Your task to perform on an android device: Open Chrome and go to settings Image 0: 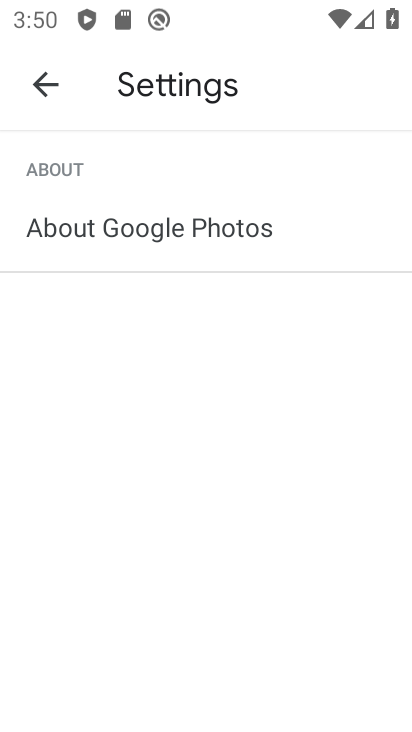
Step 0: press home button
Your task to perform on an android device: Open Chrome and go to settings Image 1: 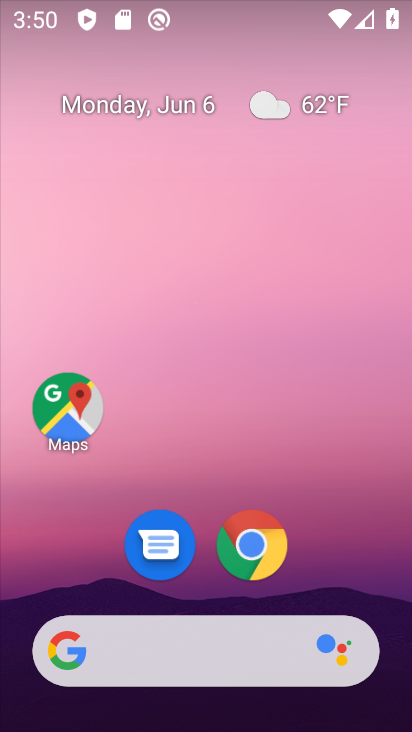
Step 1: drag from (243, 655) to (244, 135)
Your task to perform on an android device: Open Chrome and go to settings Image 2: 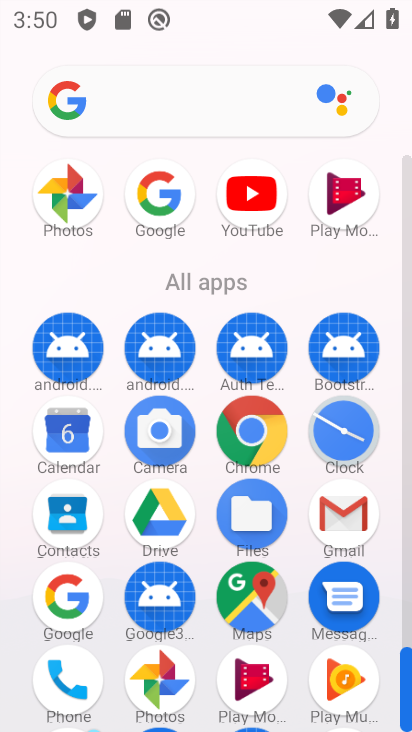
Step 2: click (247, 430)
Your task to perform on an android device: Open Chrome and go to settings Image 3: 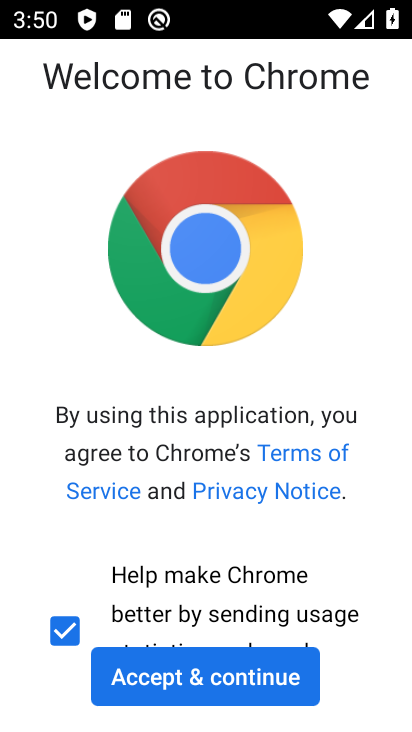
Step 3: click (176, 683)
Your task to perform on an android device: Open Chrome and go to settings Image 4: 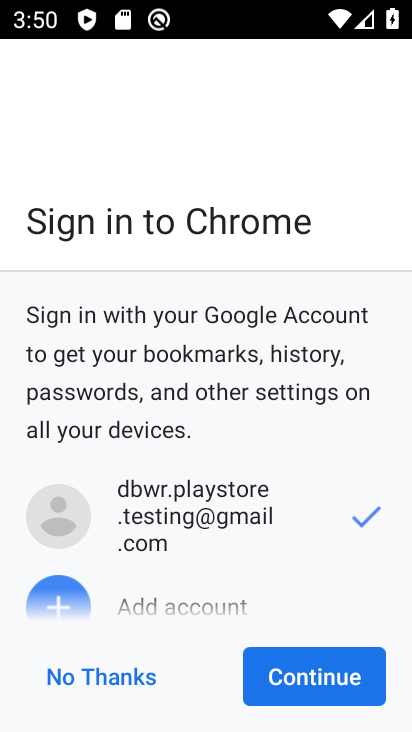
Step 4: click (284, 670)
Your task to perform on an android device: Open Chrome and go to settings Image 5: 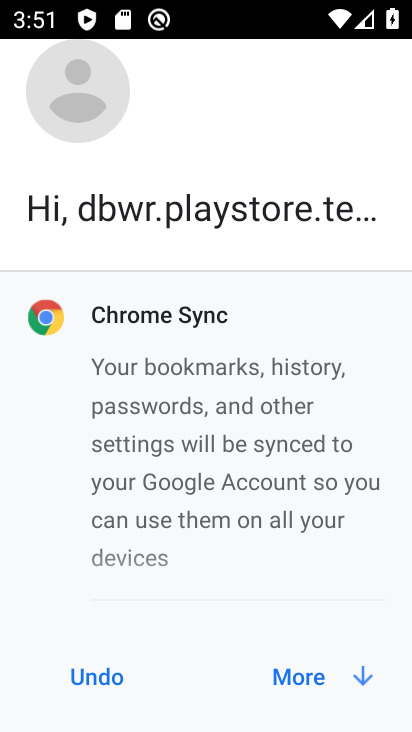
Step 5: click (295, 677)
Your task to perform on an android device: Open Chrome and go to settings Image 6: 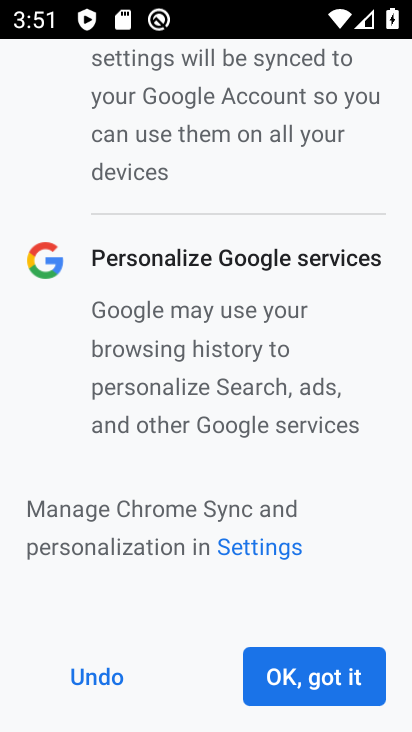
Step 6: click (313, 684)
Your task to perform on an android device: Open Chrome and go to settings Image 7: 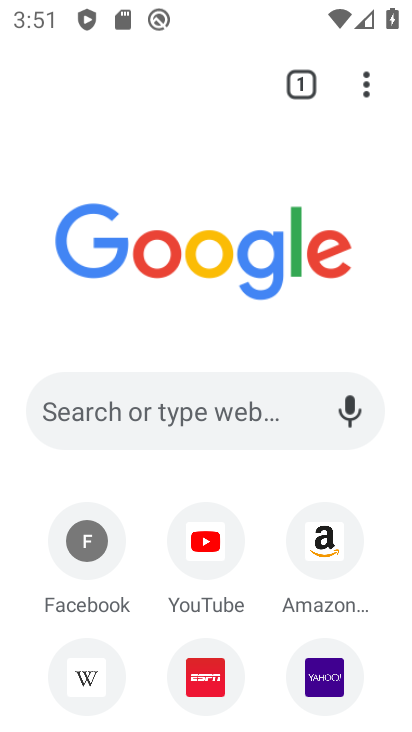
Step 7: click (369, 95)
Your task to perform on an android device: Open Chrome and go to settings Image 8: 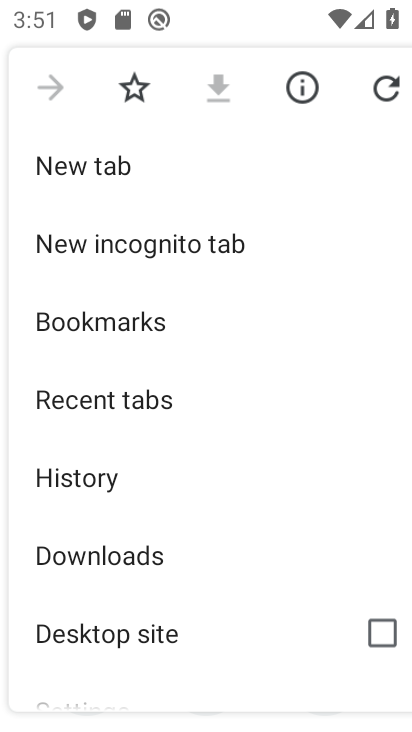
Step 8: drag from (99, 663) to (94, 254)
Your task to perform on an android device: Open Chrome and go to settings Image 9: 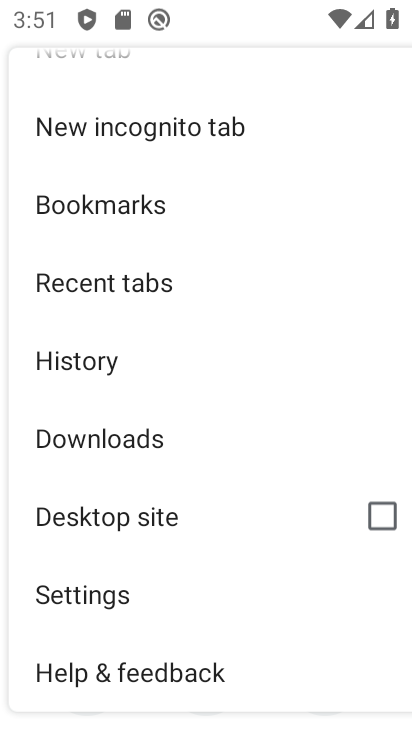
Step 9: click (66, 588)
Your task to perform on an android device: Open Chrome and go to settings Image 10: 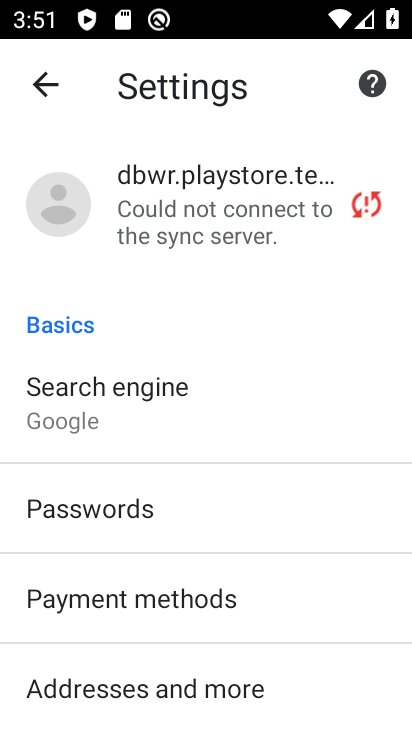
Step 10: task complete